Your task to perform on an android device: Clear the cart on newegg. Search for razer deathadder on newegg, select the first entry, and add it to the cart. Image 0: 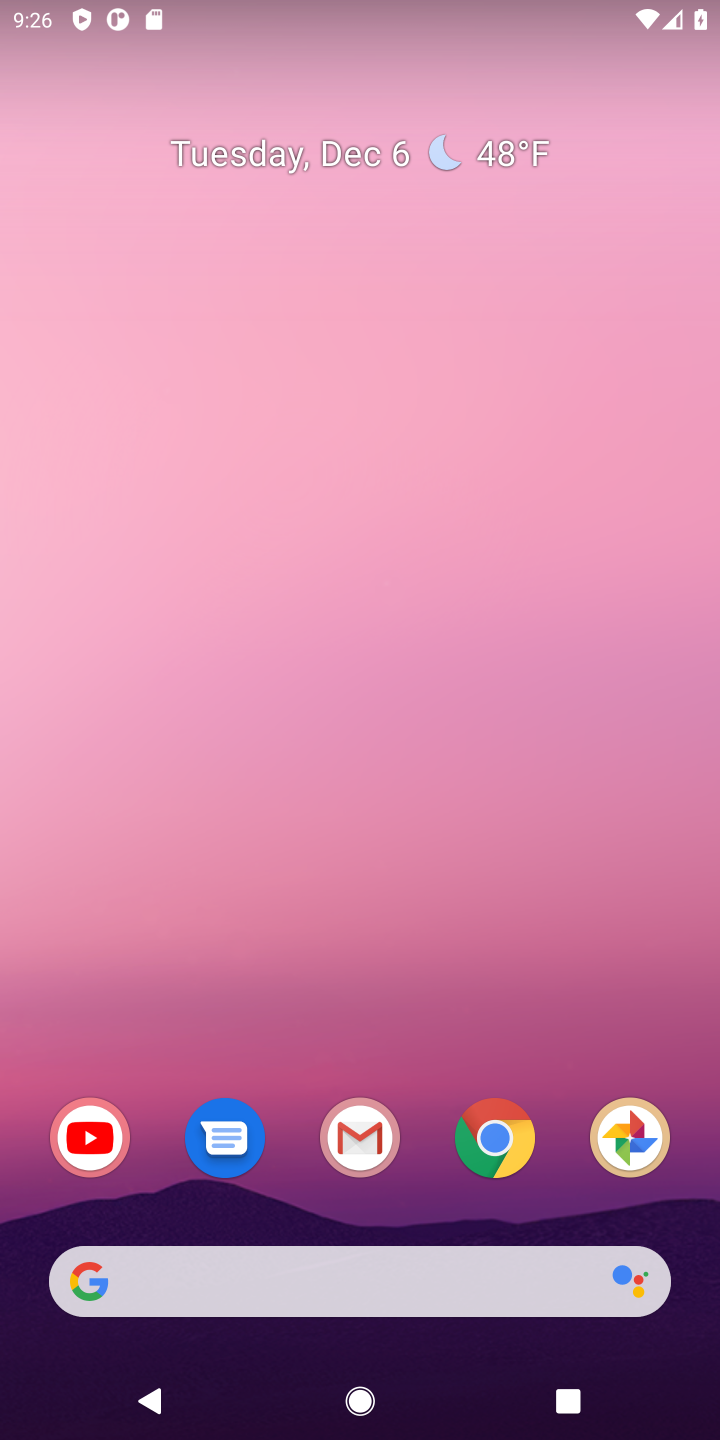
Step 0: click (497, 1142)
Your task to perform on an android device: Clear the cart on newegg. Search for razer deathadder on newegg, select the first entry, and add it to the cart. Image 1: 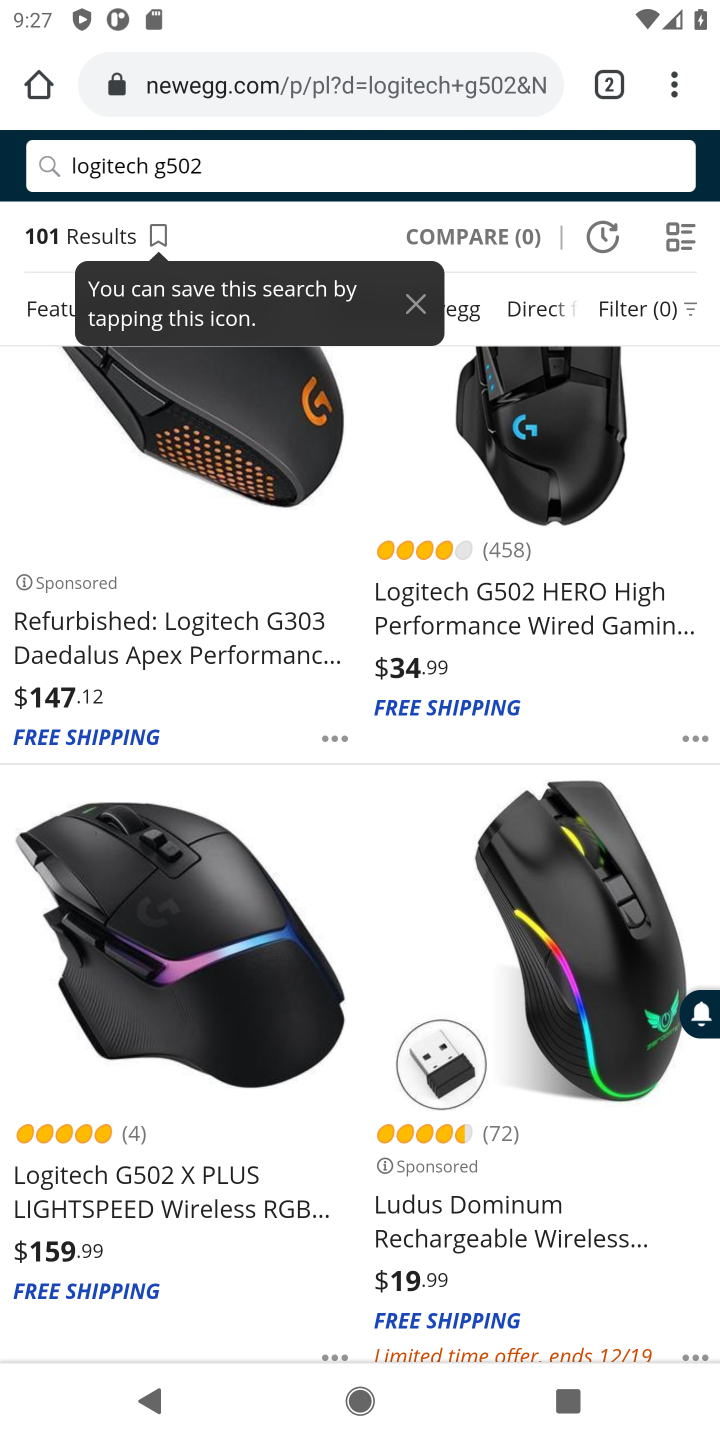
Step 1: drag from (295, 257) to (243, 827)
Your task to perform on an android device: Clear the cart on newegg. Search for razer deathadder on newegg, select the first entry, and add it to the cart. Image 2: 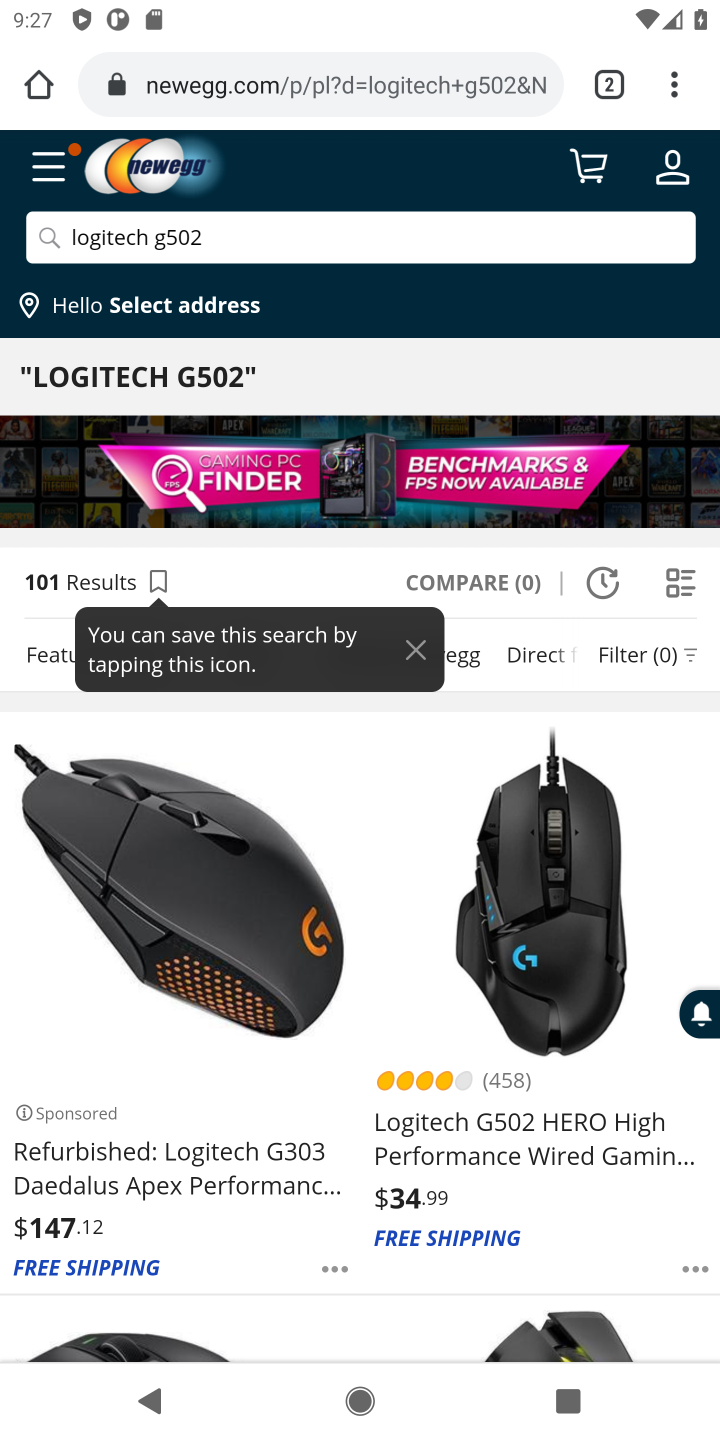
Step 2: click (586, 174)
Your task to perform on an android device: Clear the cart on newegg. Search for razer deathadder on newegg, select the first entry, and add it to the cart. Image 3: 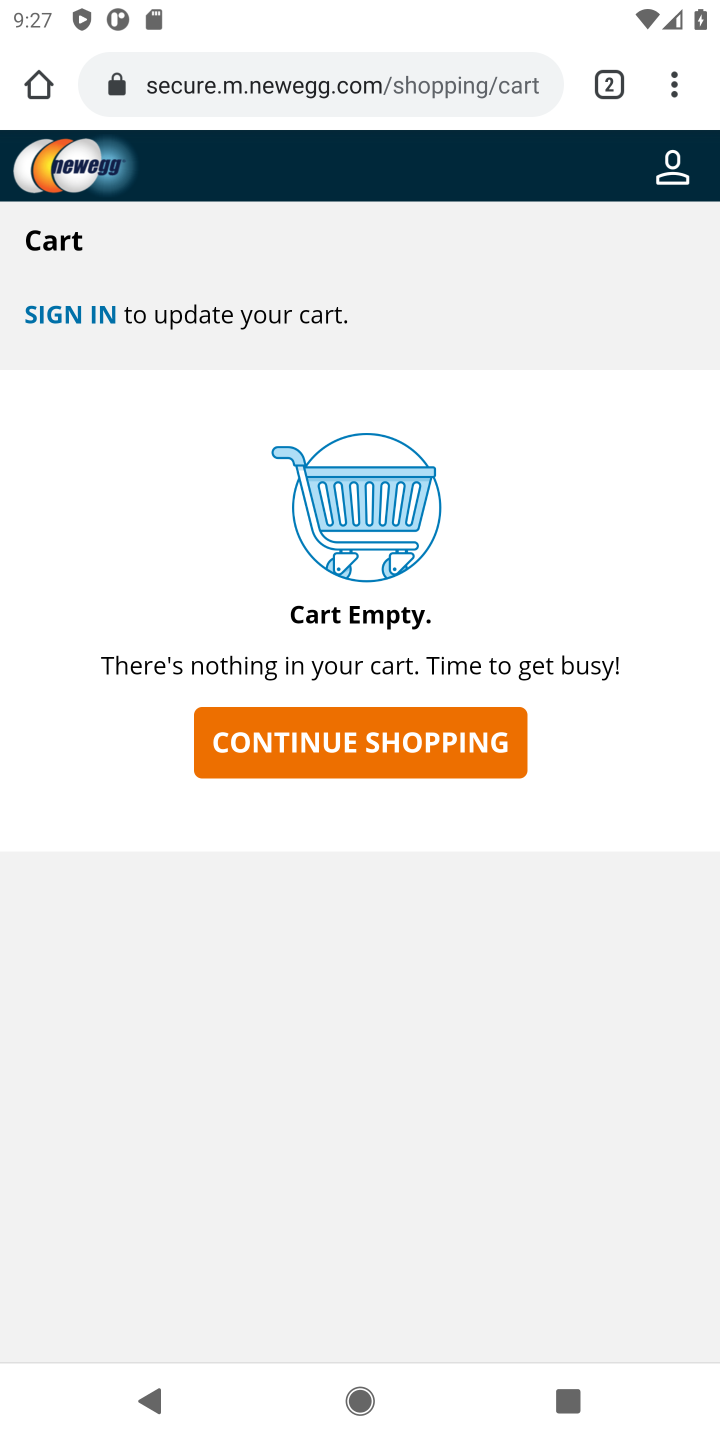
Step 3: click (329, 732)
Your task to perform on an android device: Clear the cart on newegg. Search for razer deathadder on newegg, select the first entry, and add it to the cart. Image 4: 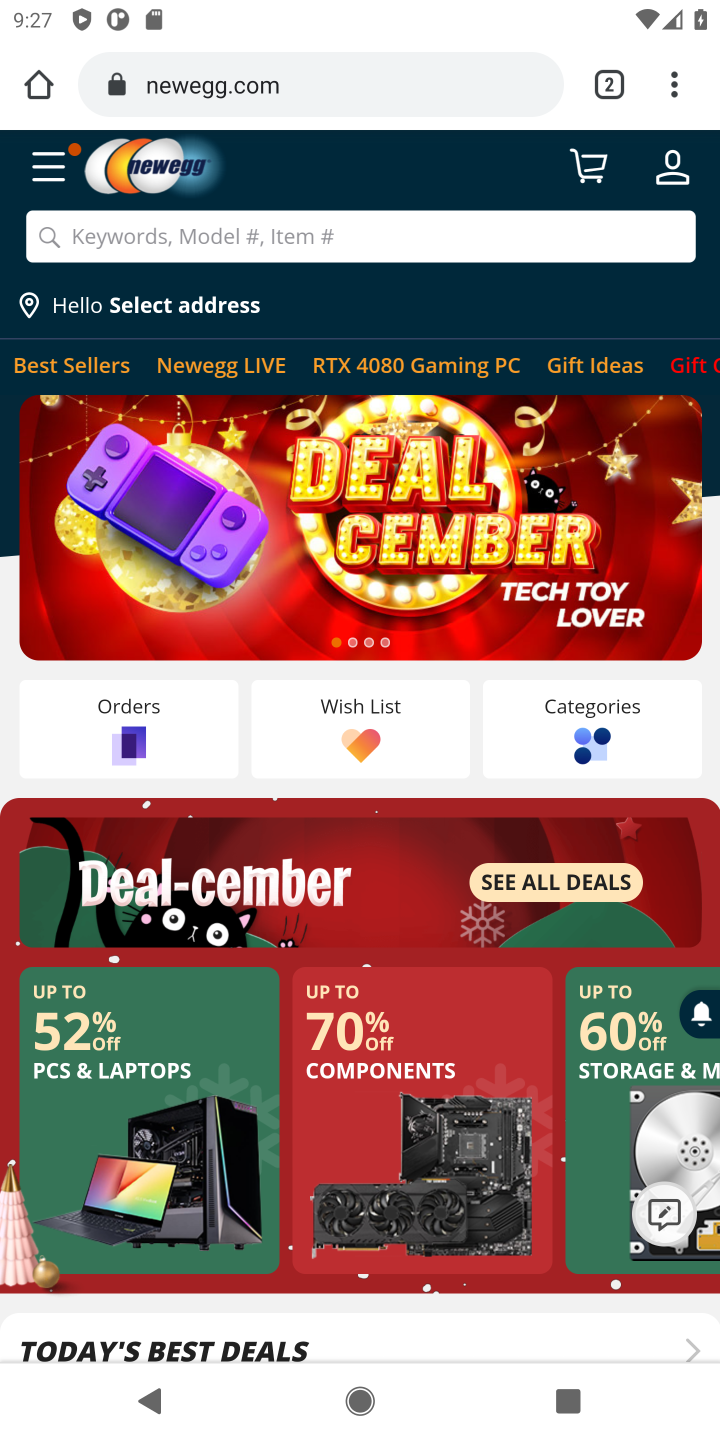
Step 4: click (170, 243)
Your task to perform on an android device: Clear the cart on newegg. Search for razer deathadder on newegg, select the first entry, and add it to the cart. Image 5: 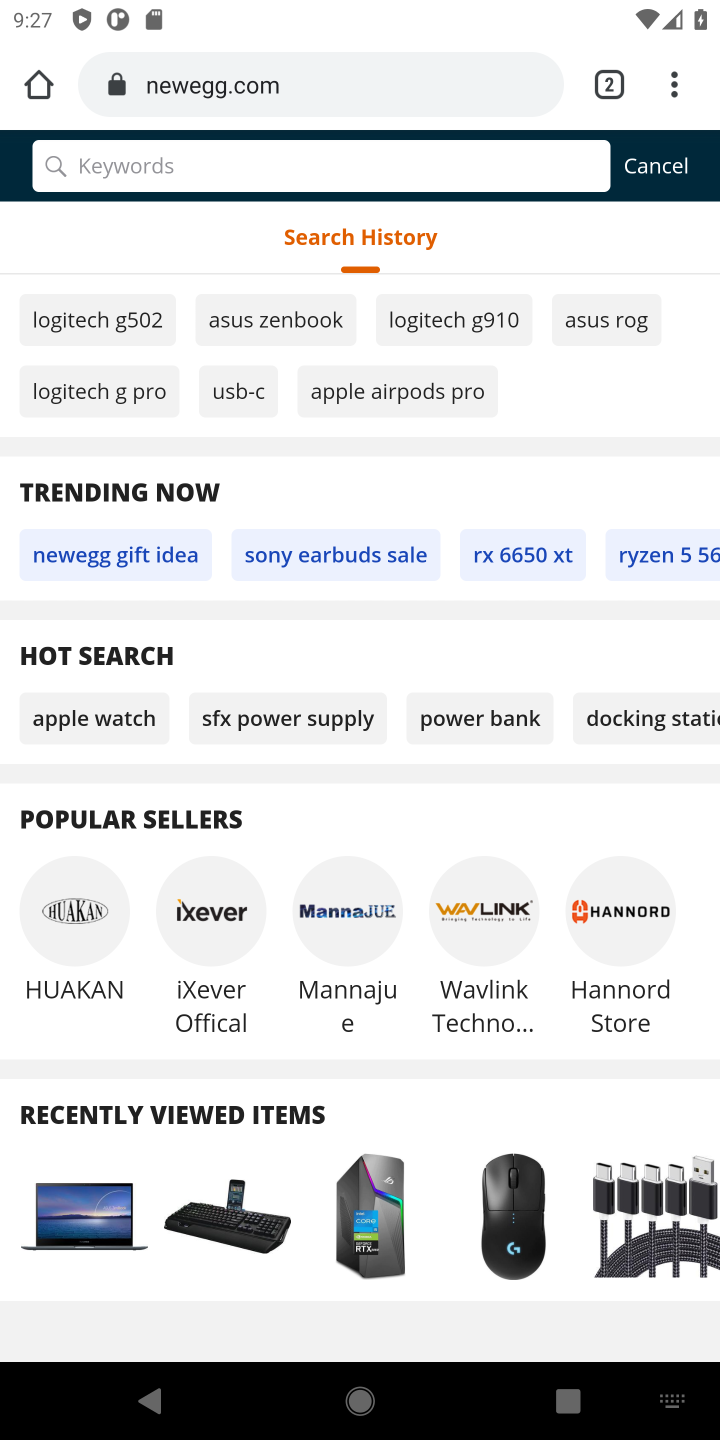
Step 5: type "razer deathadder "
Your task to perform on an android device: Clear the cart on newegg. Search for razer deathadder on newegg, select the first entry, and add it to the cart. Image 6: 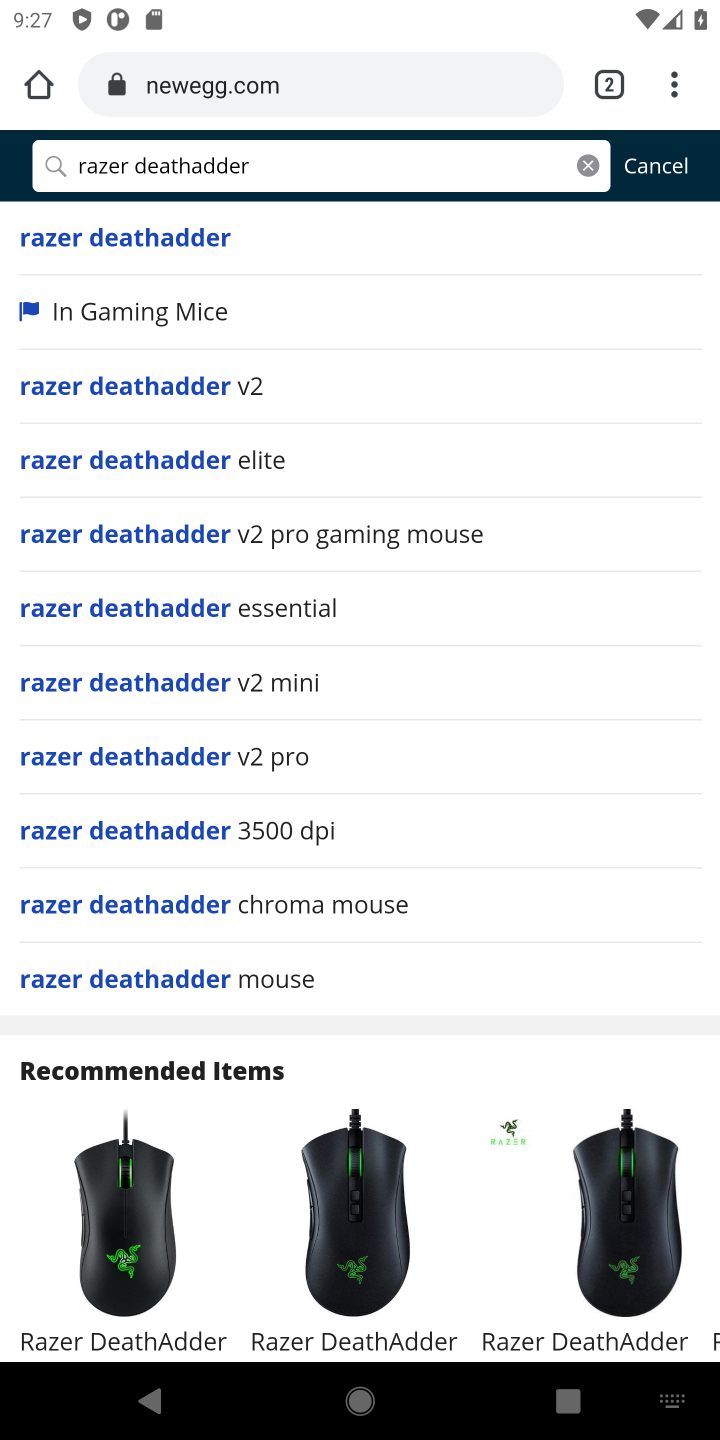
Step 6: click (185, 255)
Your task to perform on an android device: Clear the cart on newegg. Search for razer deathadder on newegg, select the first entry, and add it to the cart. Image 7: 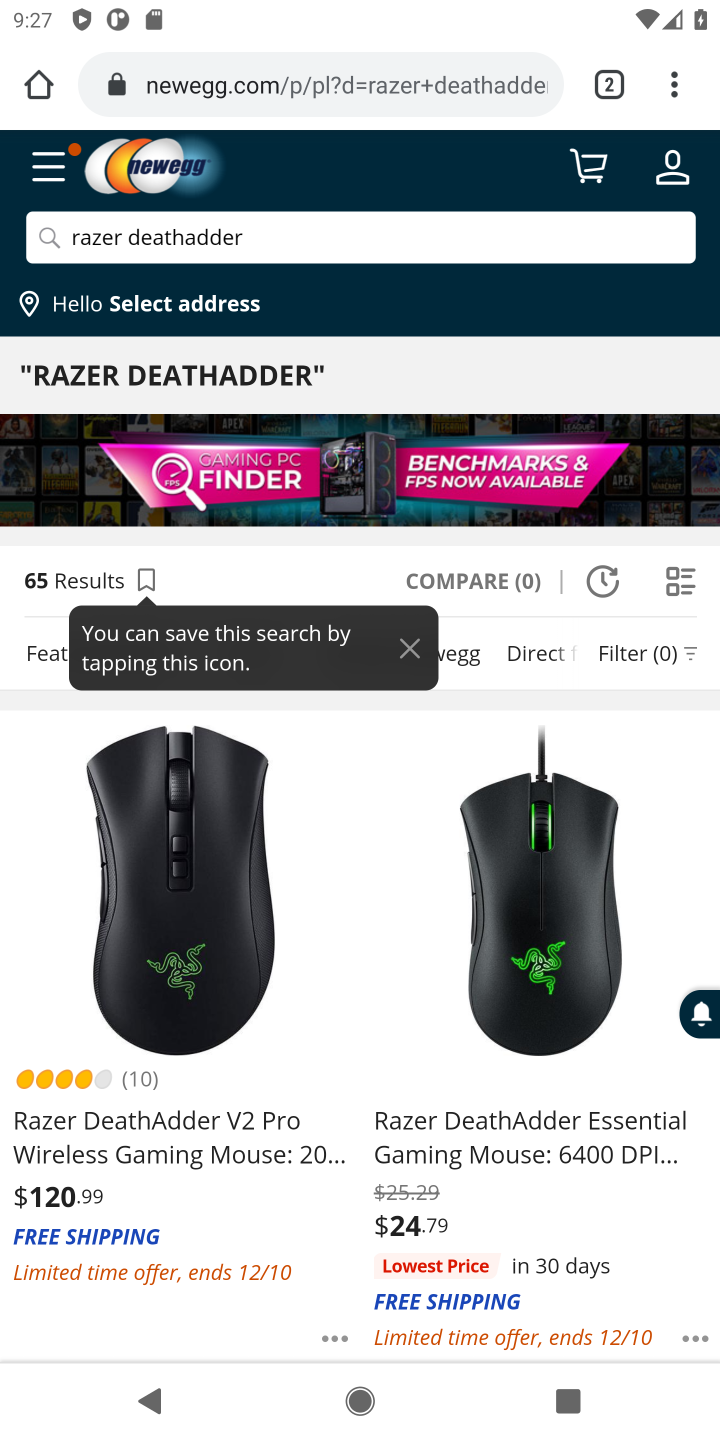
Step 7: click (136, 1157)
Your task to perform on an android device: Clear the cart on newegg. Search for razer deathadder on newegg, select the first entry, and add it to the cart. Image 8: 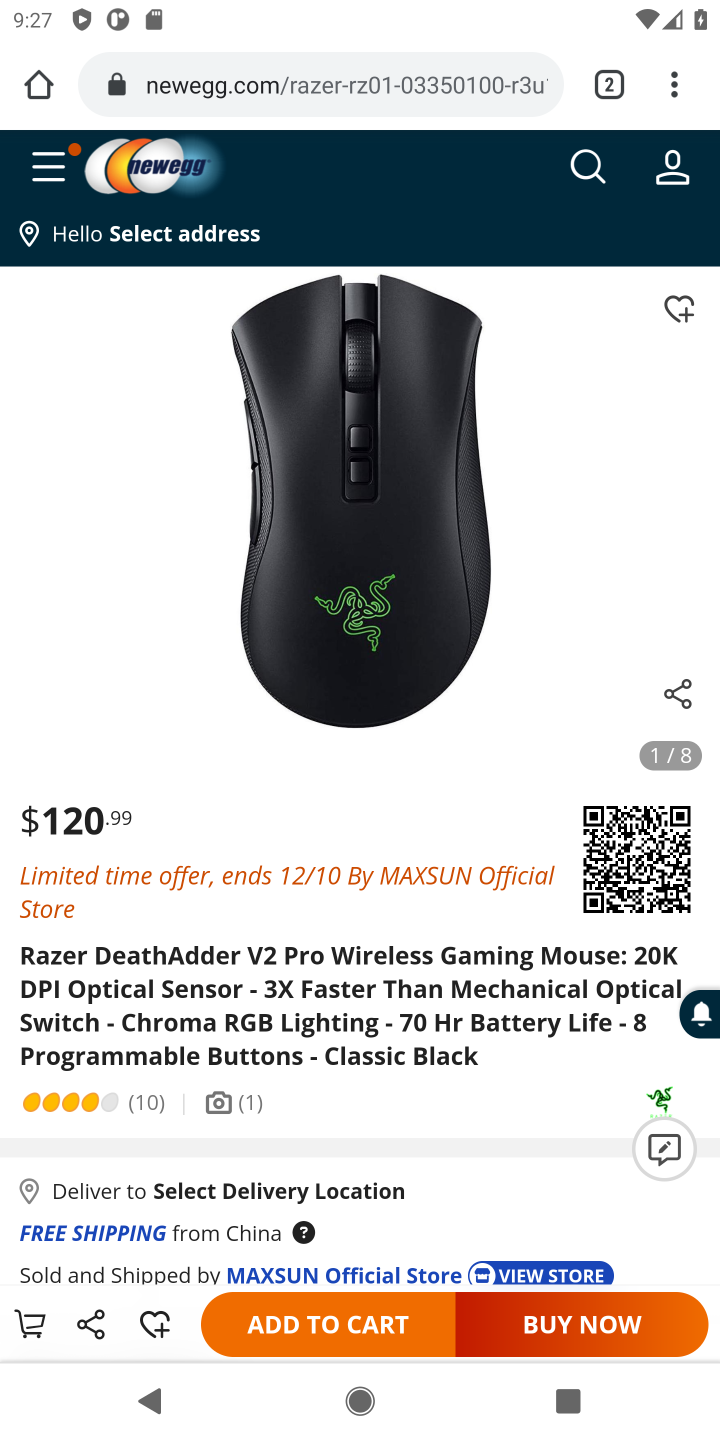
Step 8: click (296, 1324)
Your task to perform on an android device: Clear the cart on newegg. Search for razer deathadder on newegg, select the first entry, and add it to the cart. Image 9: 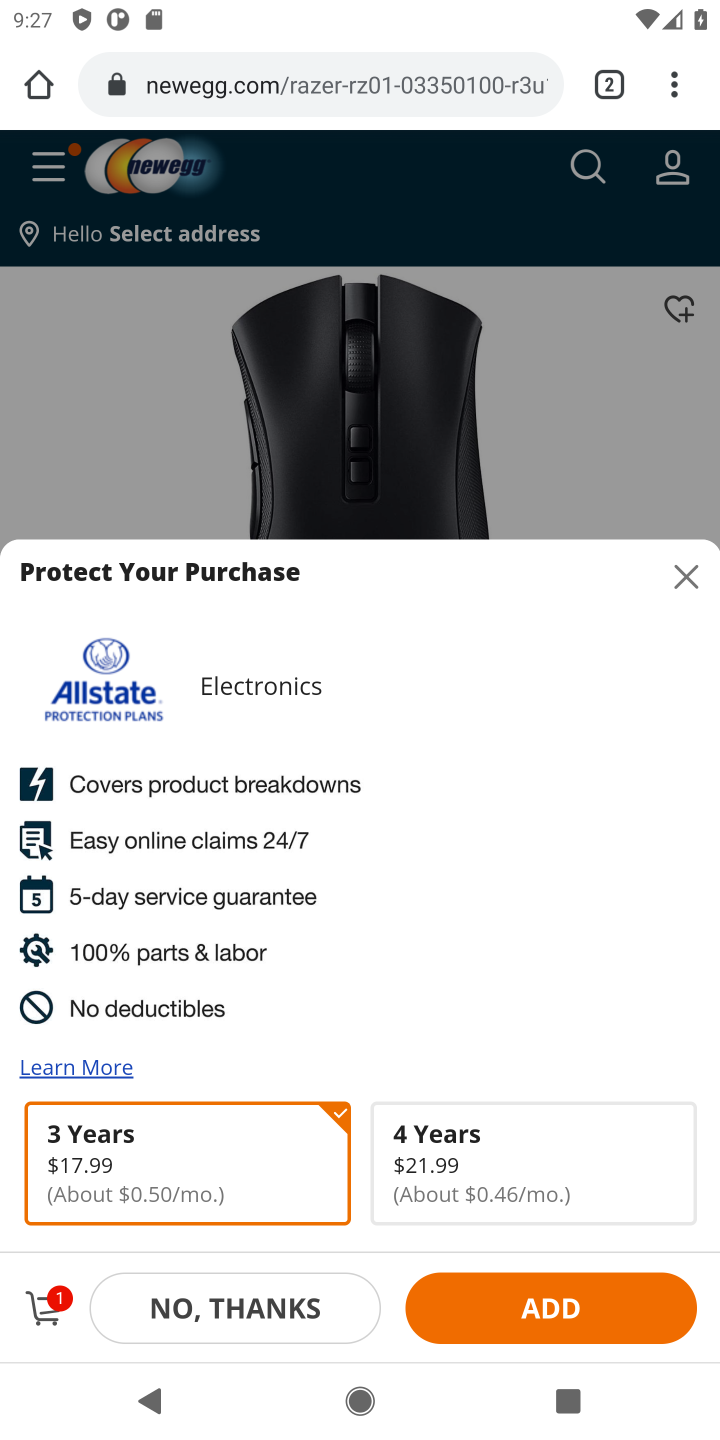
Step 9: task complete